Your task to perform on an android device: open a bookmark in the chrome app Image 0: 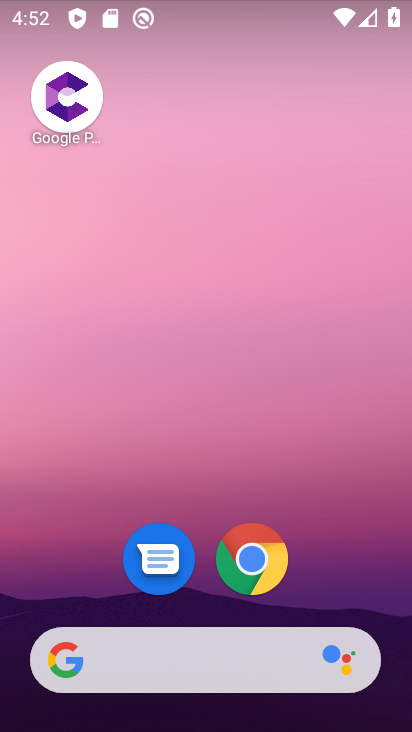
Step 0: click (259, 565)
Your task to perform on an android device: open a bookmark in the chrome app Image 1: 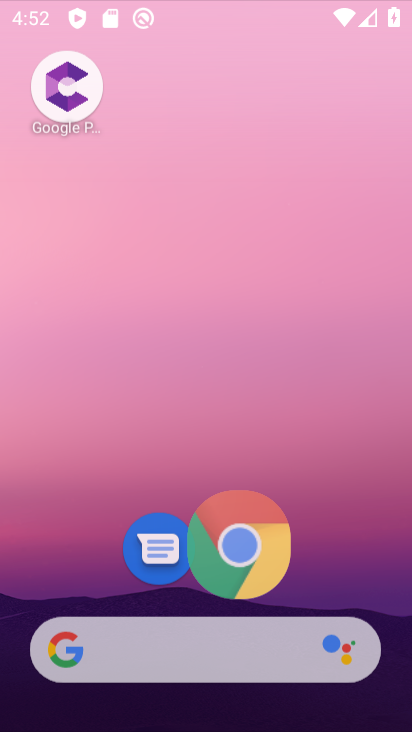
Step 1: click (259, 565)
Your task to perform on an android device: open a bookmark in the chrome app Image 2: 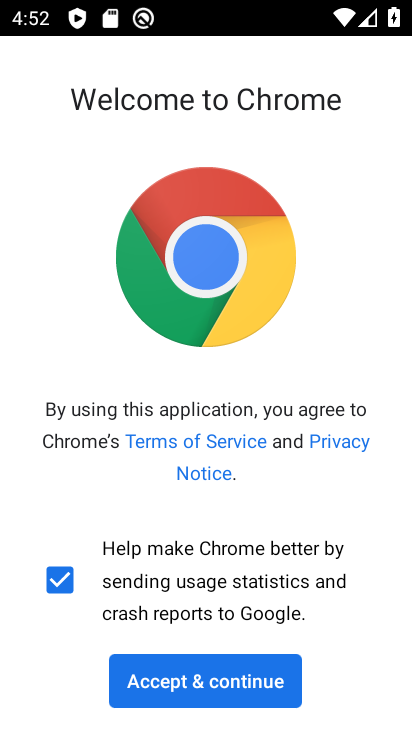
Step 2: click (282, 671)
Your task to perform on an android device: open a bookmark in the chrome app Image 3: 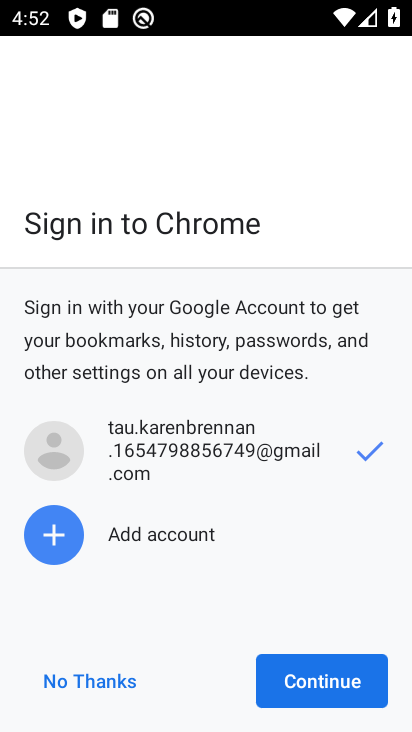
Step 3: click (282, 671)
Your task to perform on an android device: open a bookmark in the chrome app Image 4: 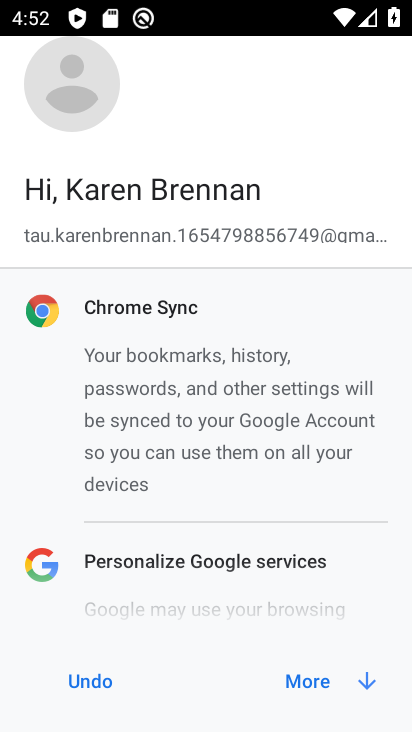
Step 4: click (284, 694)
Your task to perform on an android device: open a bookmark in the chrome app Image 5: 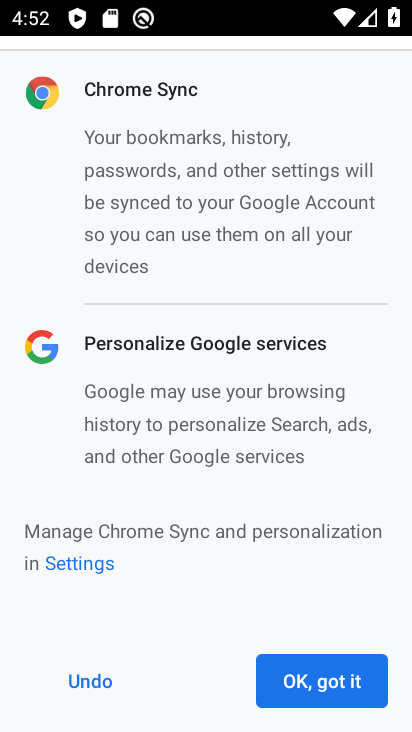
Step 5: click (284, 694)
Your task to perform on an android device: open a bookmark in the chrome app Image 6: 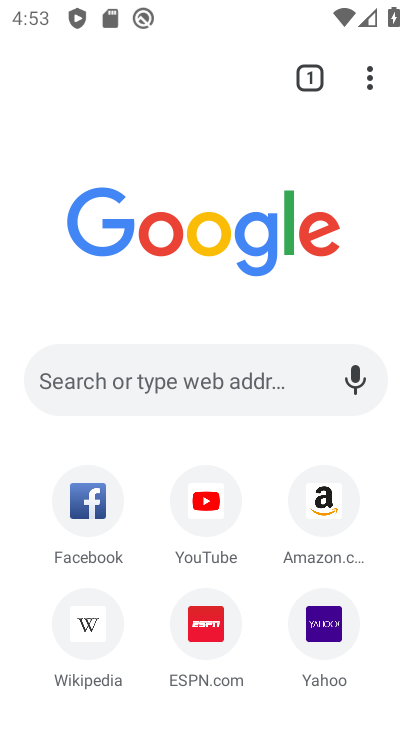
Step 6: drag from (365, 72) to (156, 288)
Your task to perform on an android device: open a bookmark in the chrome app Image 7: 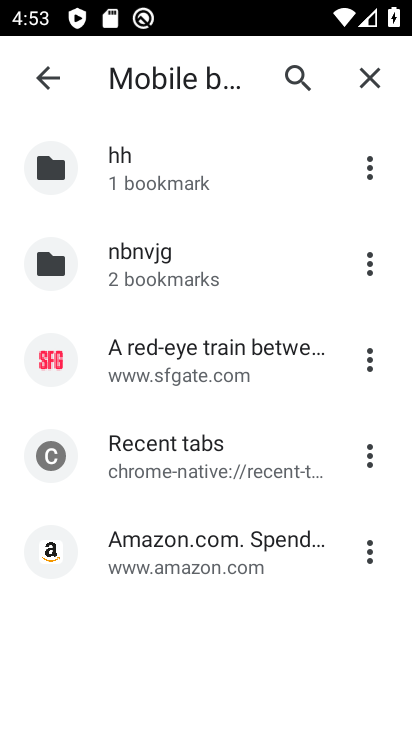
Step 7: click (234, 376)
Your task to perform on an android device: open a bookmark in the chrome app Image 8: 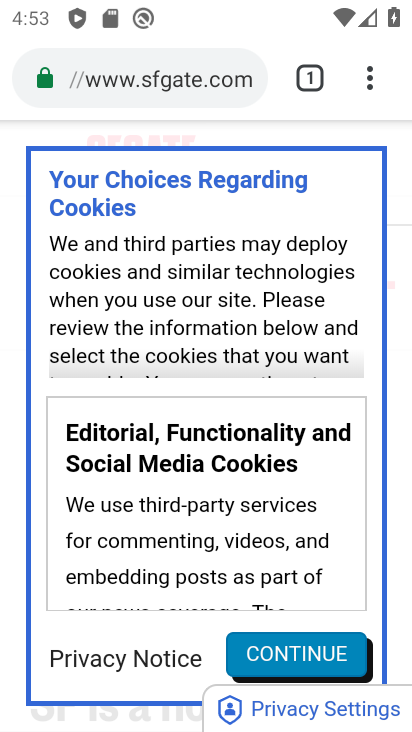
Step 8: task complete